Your task to perform on an android device: Check the news Image 0: 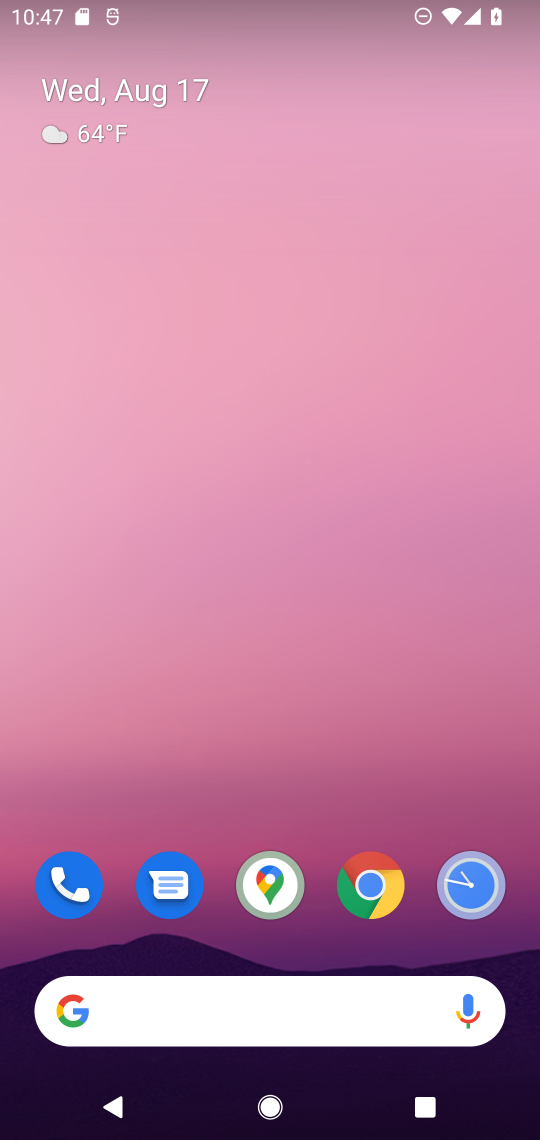
Step 0: drag from (5, 644) to (535, 606)
Your task to perform on an android device: Check the news Image 1: 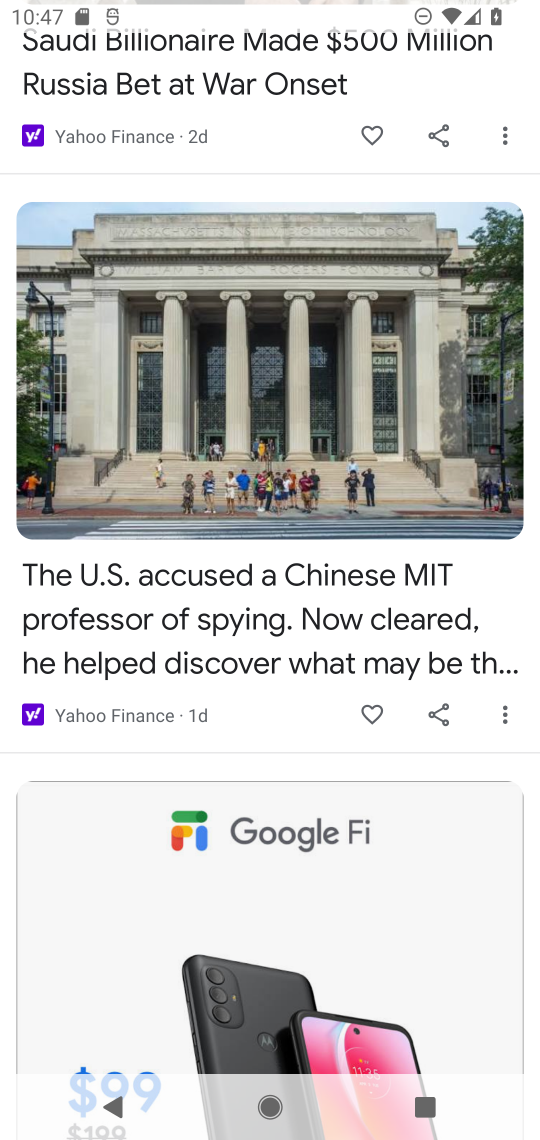
Step 1: task complete